Your task to perform on an android device: Open Youtube and go to "Your channel" Image 0: 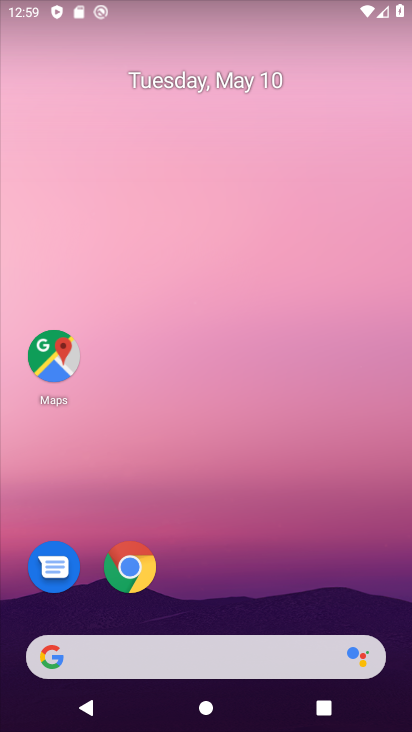
Step 0: click (138, 558)
Your task to perform on an android device: Open Youtube and go to "Your channel" Image 1: 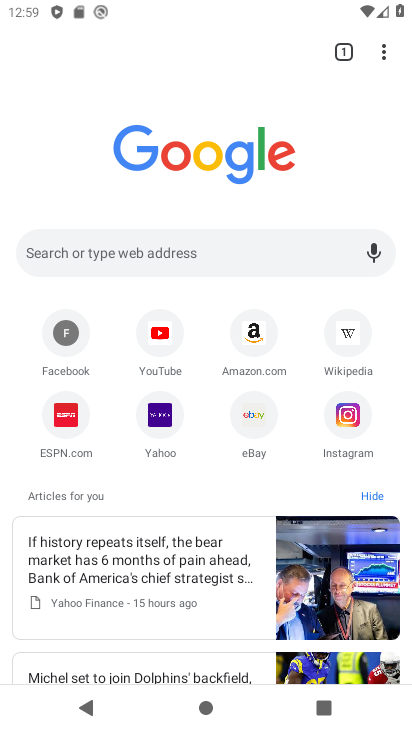
Step 1: press home button
Your task to perform on an android device: Open Youtube and go to "Your channel" Image 2: 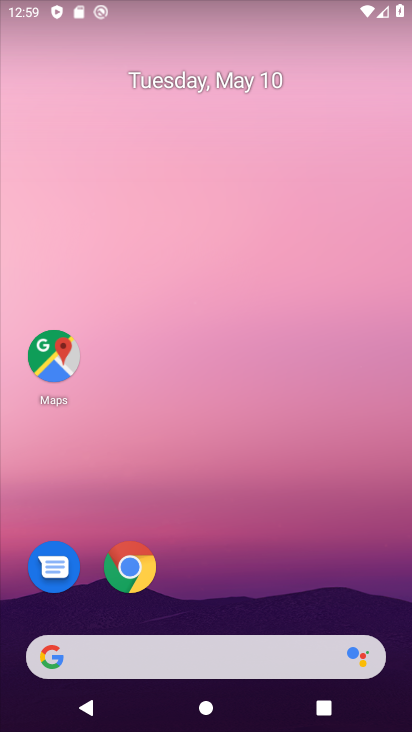
Step 2: drag from (341, 564) to (379, 204)
Your task to perform on an android device: Open Youtube and go to "Your channel" Image 3: 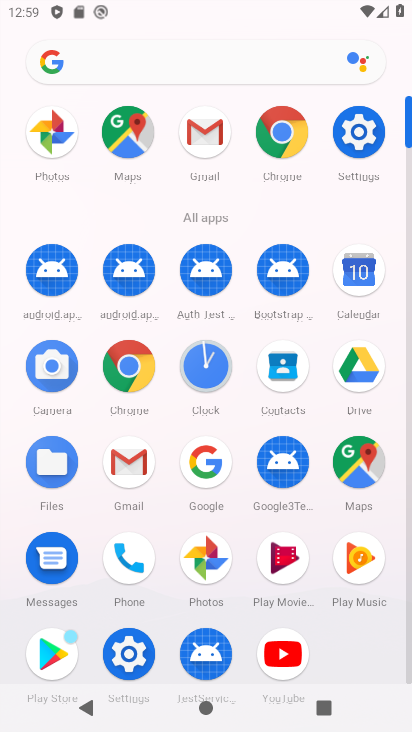
Step 3: click (290, 645)
Your task to perform on an android device: Open Youtube and go to "Your channel" Image 4: 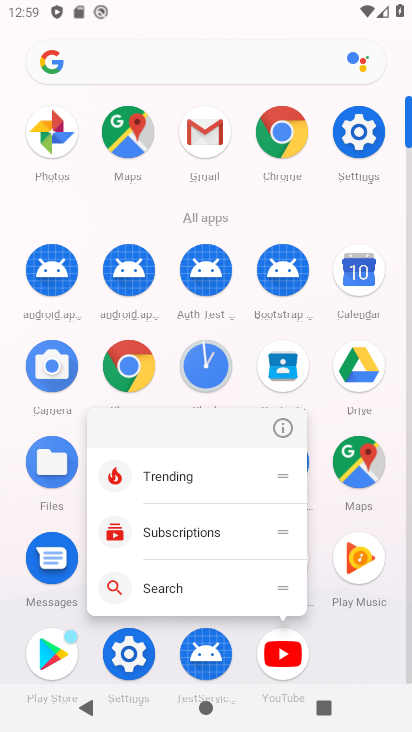
Step 4: click (283, 666)
Your task to perform on an android device: Open Youtube and go to "Your channel" Image 5: 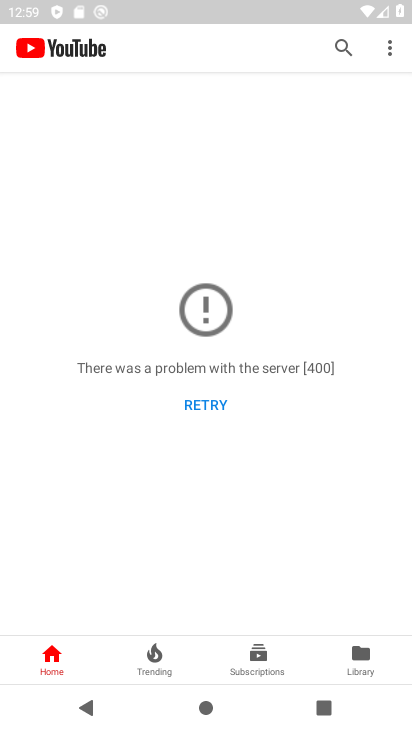
Step 5: click (363, 661)
Your task to perform on an android device: Open Youtube and go to "Your channel" Image 6: 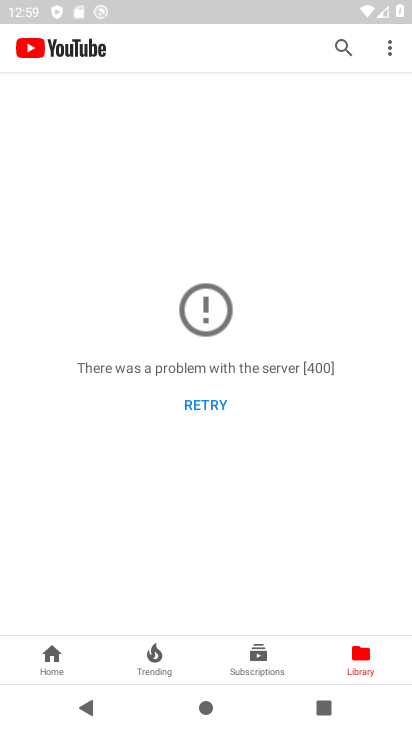
Step 6: click (362, 659)
Your task to perform on an android device: Open Youtube and go to "Your channel" Image 7: 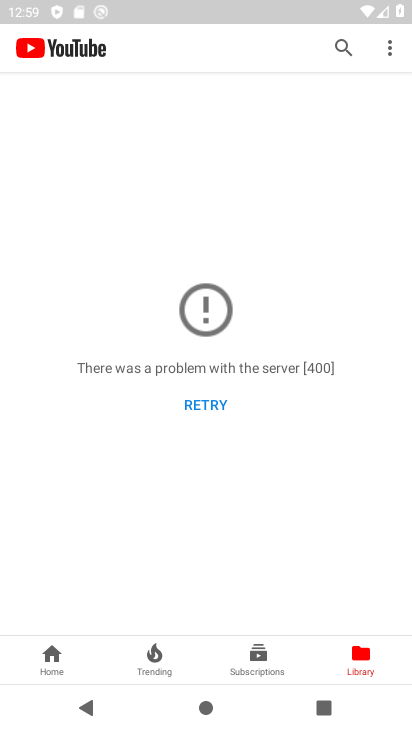
Step 7: task complete